Your task to perform on an android device: install app "Skype" Image 0: 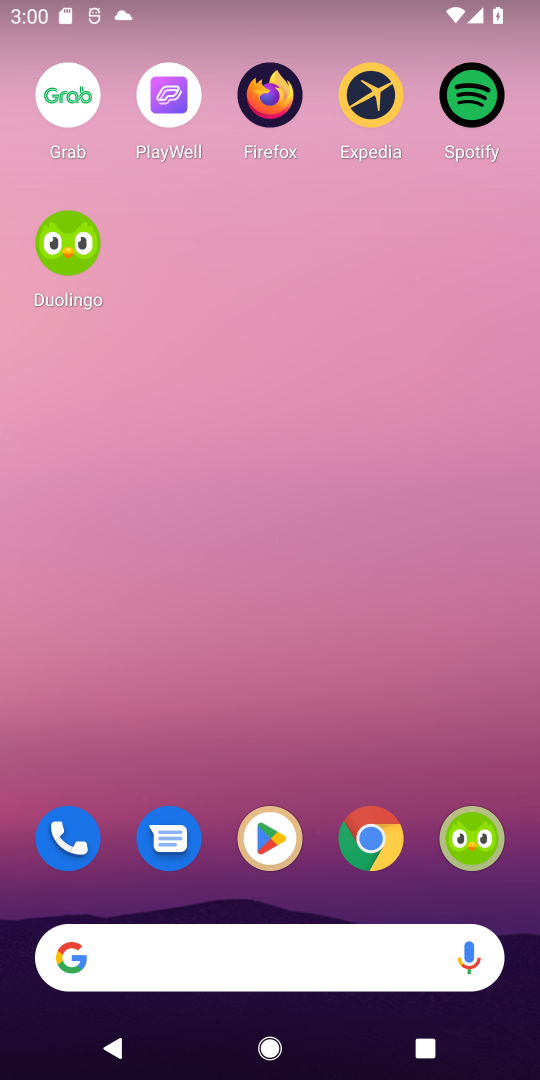
Step 0: click (259, 857)
Your task to perform on an android device: install app "Skype" Image 1: 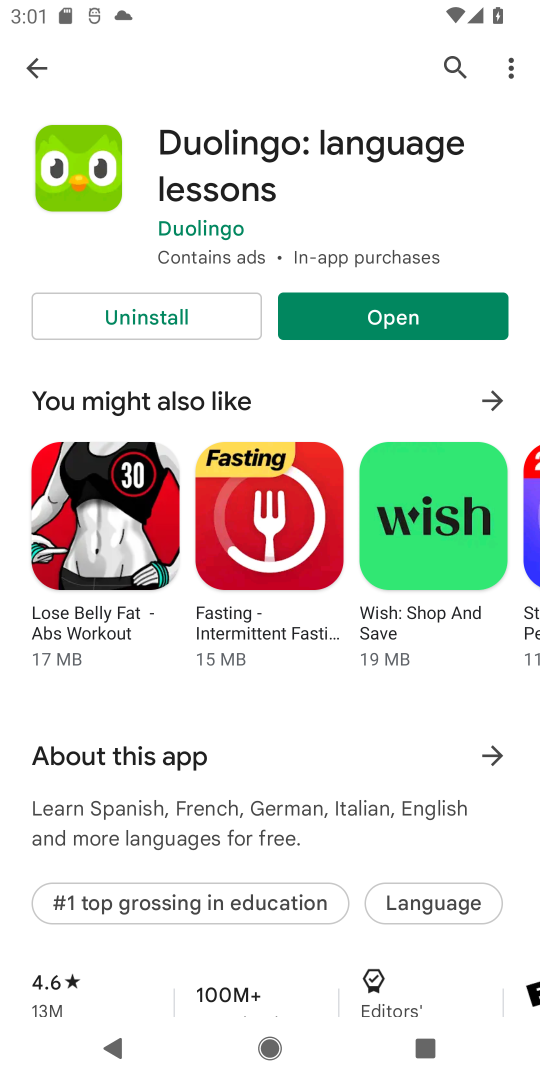
Step 1: click (34, 72)
Your task to perform on an android device: install app "Skype" Image 2: 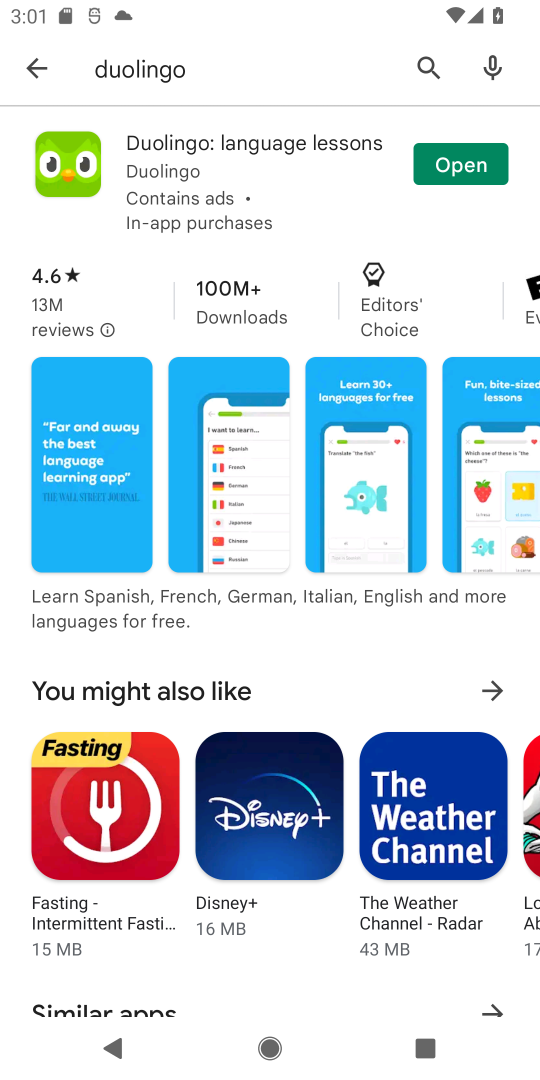
Step 2: click (413, 75)
Your task to perform on an android device: install app "Skype" Image 3: 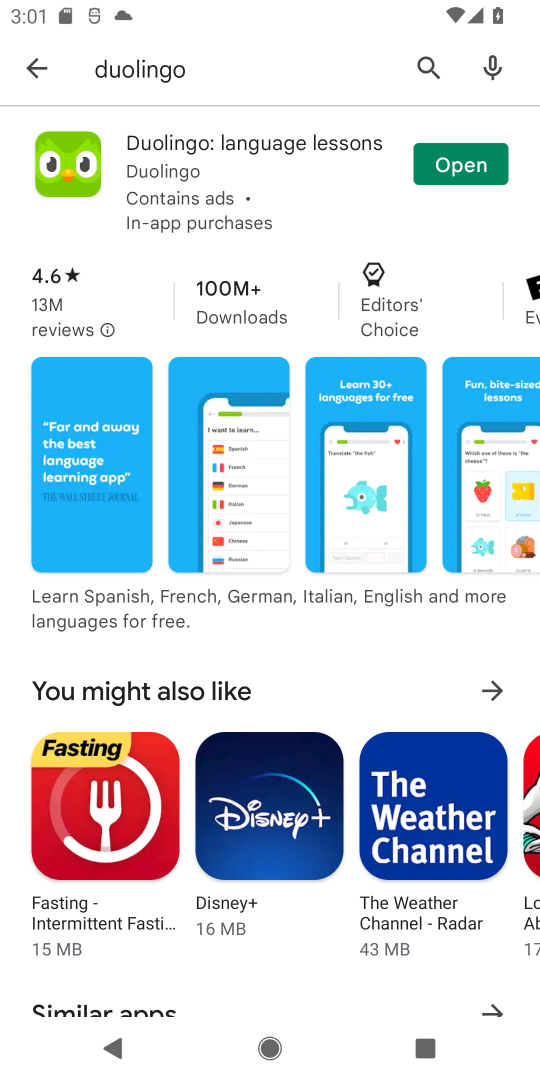
Step 3: click (413, 75)
Your task to perform on an android device: install app "Skype" Image 4: 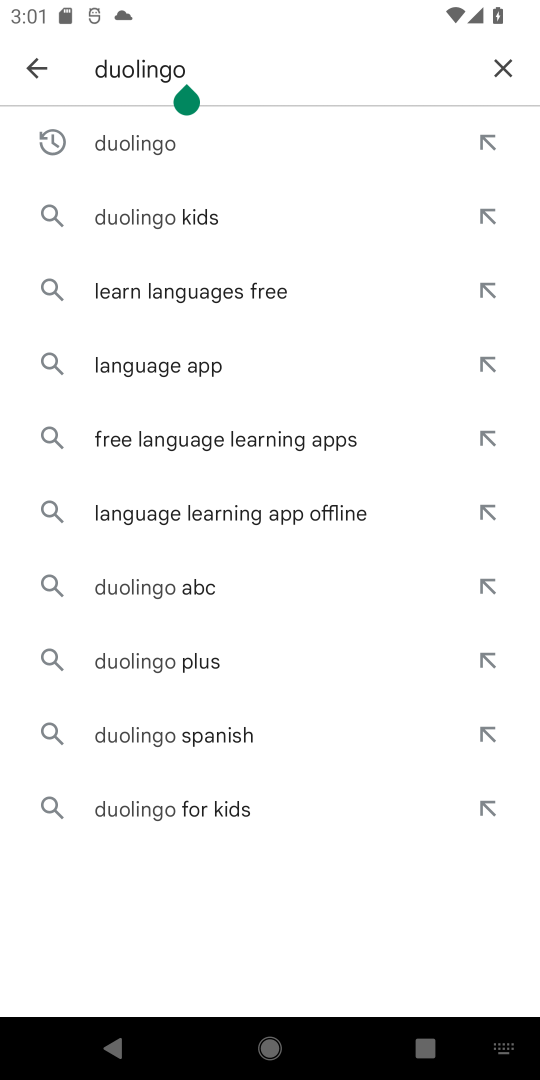
Step 4: click (503, 63)
Your task to perform on an android device: install app "Skype" Image 5: 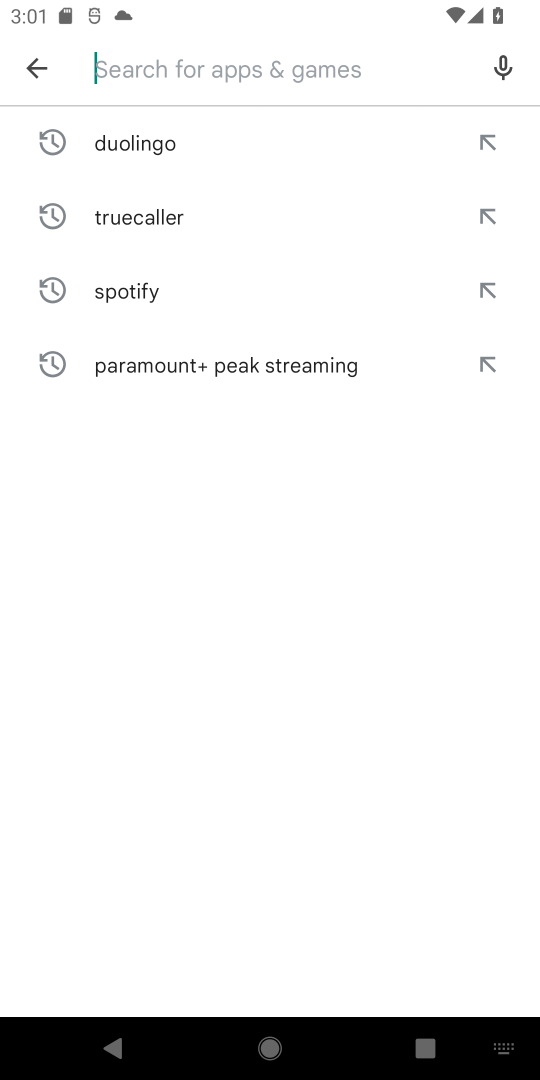
Step 5: type "Skype"
Your task to perform on an android device: install app "Skype" Image 6: 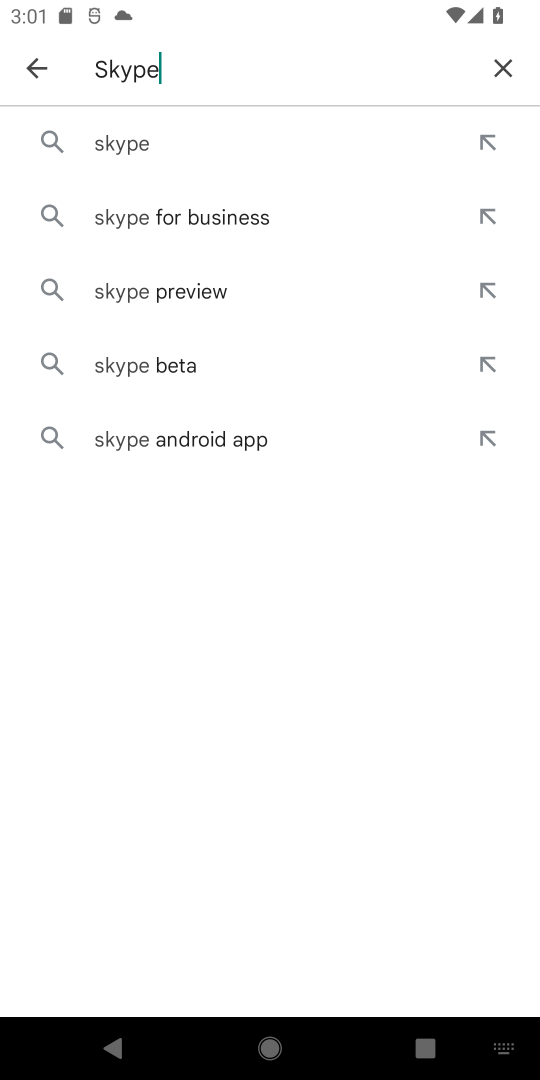
Step 6: click (92, 136)
Your task to perform on an android device: install app "Skype" Image 7: 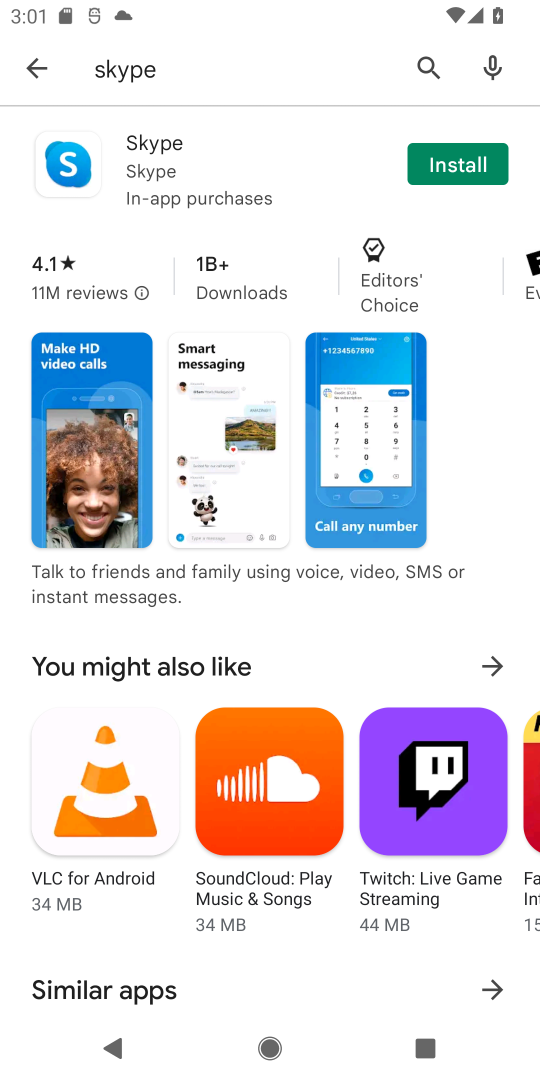
Step 7: click (487, 155)
Your task to perform on an android device: install app "Skype" Image 8: 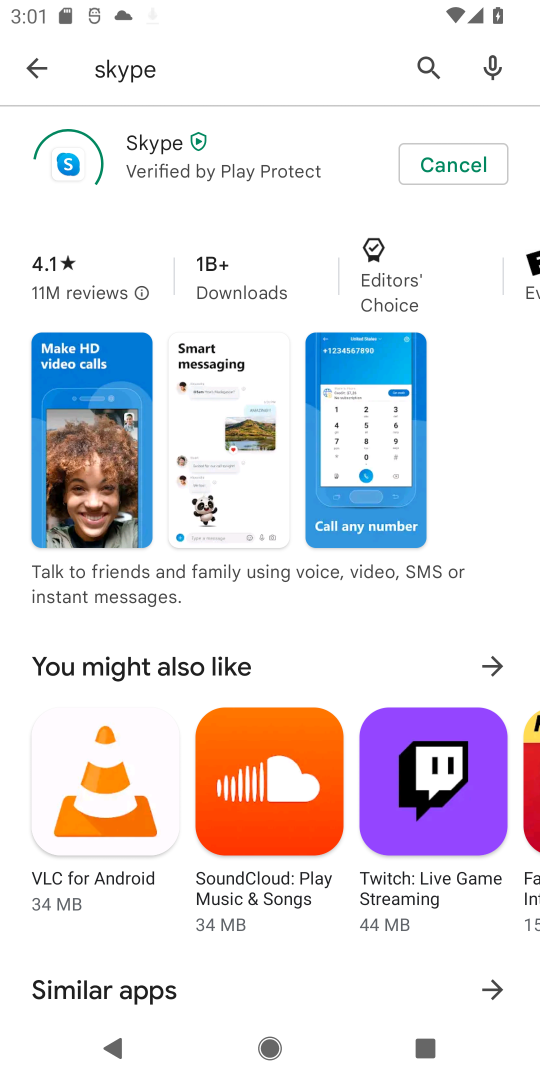
Step 8: task complete